Your task to perform on an android device: all mails in gmail Image 0: 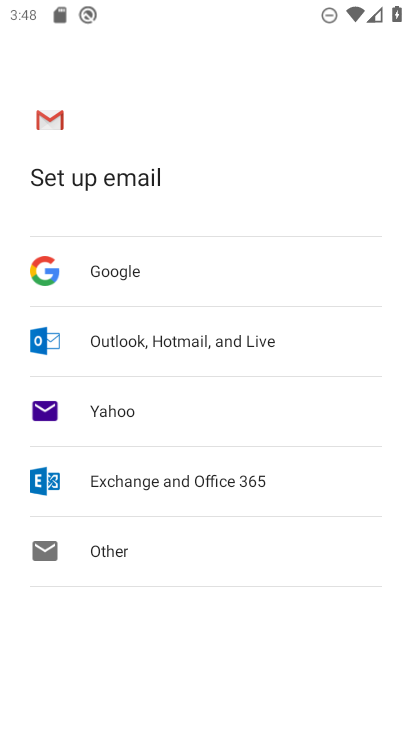
Step 0: press home button
Your task to perform on an android device: all mails in gmail Image 1: 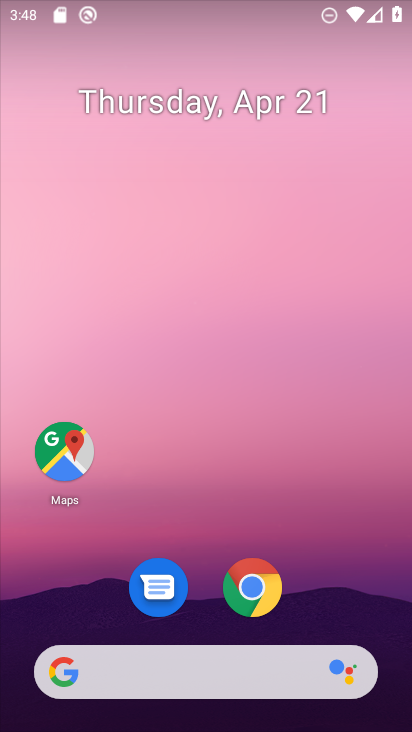
Step 1: drag from (362, 613) to (368, 82)
Your task to perform on an android device: all mails in gmail Image 2: 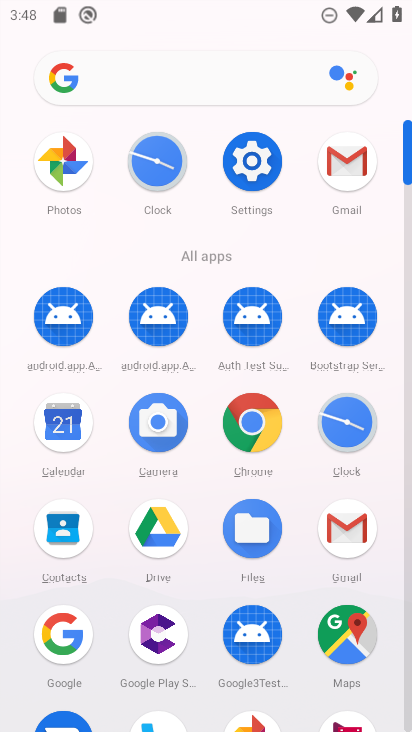
Step 2: click (342, 168)
Your task to perform on an android device: all mails in gmail Image 3: 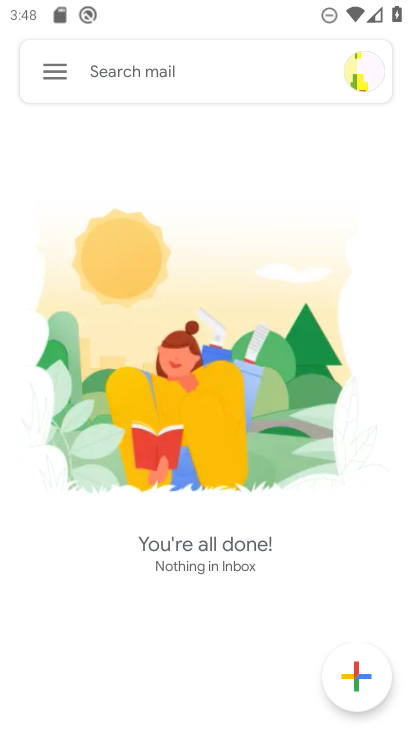
Step 3: click (46, 71)
Your task to perform on an android device: all mails in gmail Image 4: 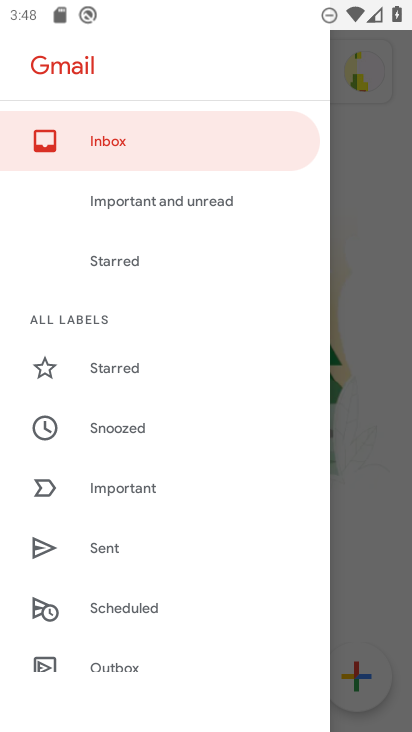
Step 4: drag from (234, 617) to (244, 360)
Your task to perform on an android device: all mails in gmail Image 5: 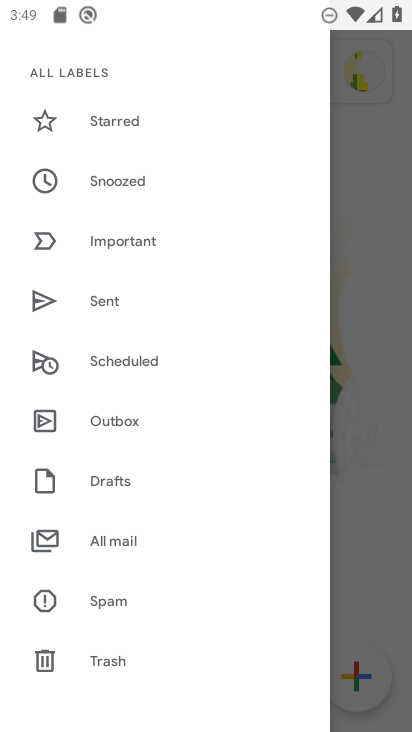
Step 5: click (112, 543)
Your task to perform on an android device: all mails in gmail Image 6: 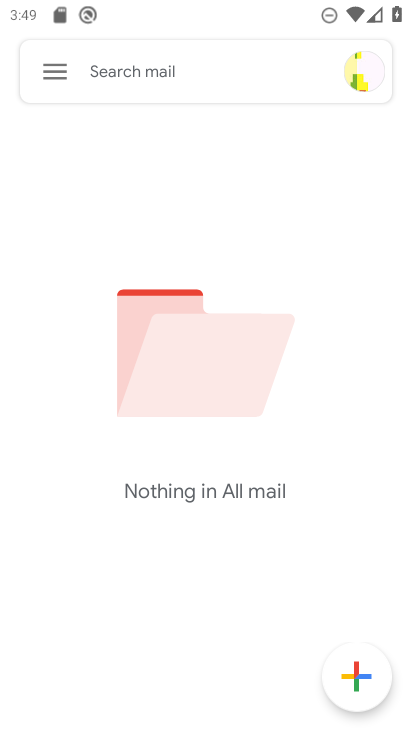
Step 6: task complete